Your task to perform on an android device: turn off picture-in-picture Image 0: 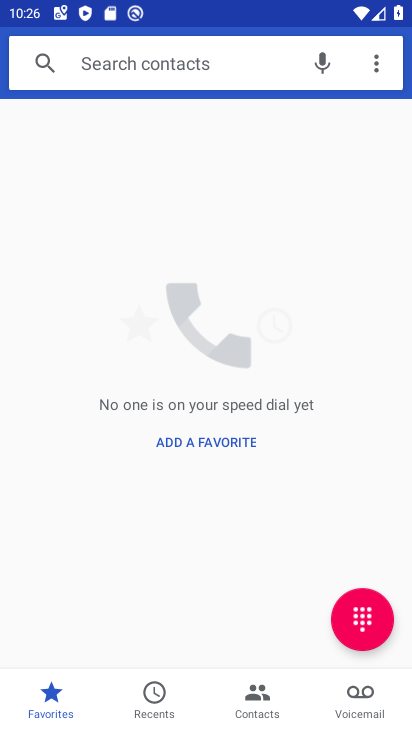
Step 0: press home button
Your task to perform on an android device: turn off picture-in-picture Image 1: 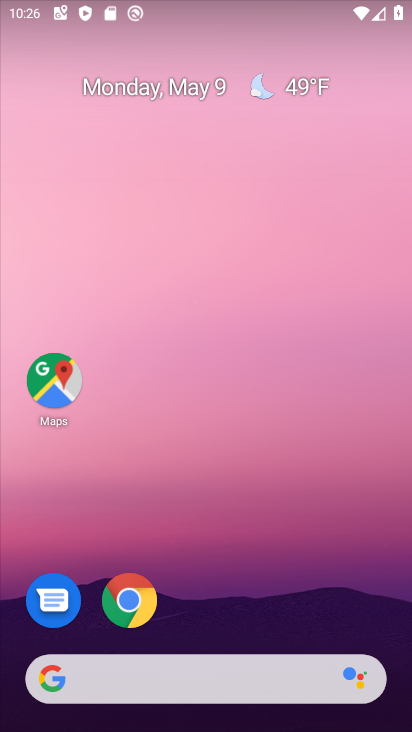
Step 1: drag from (384, 598) to (372, 37)
Your task to perform on an android device: turn off picture-in-picture Image 2: 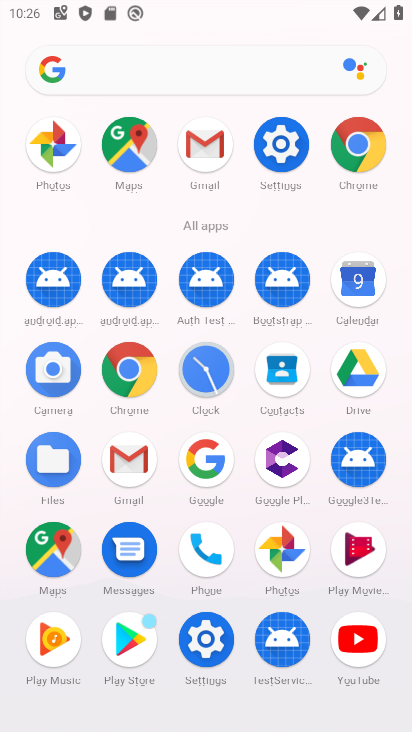
Step 2: click (286, 152)
Your task to perform on an android device: turn off picture-in-picture Image 3: 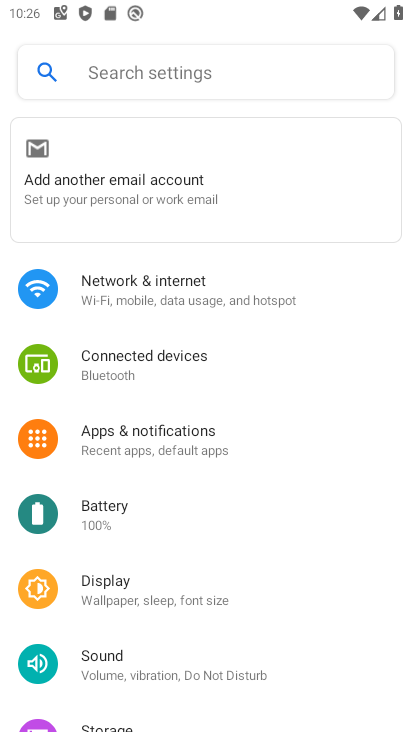
Step 3: click (232, 448)
Your task to perform on an android device: turn off picture-in-picture Image 4: 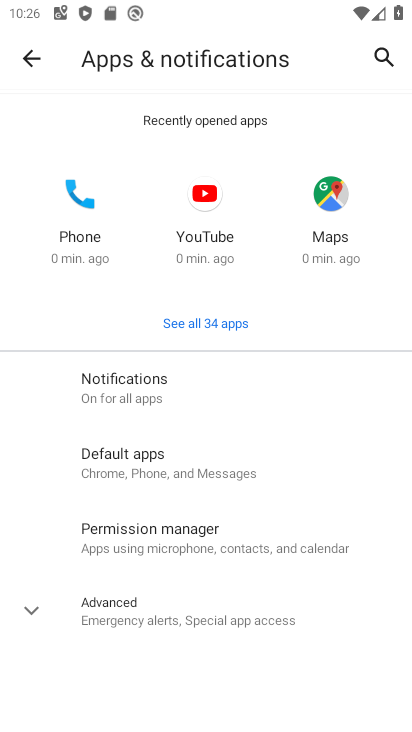
Step 4: click (150, 617)
Your task to perform on an android device: turn off picture-in-picture Image 5: 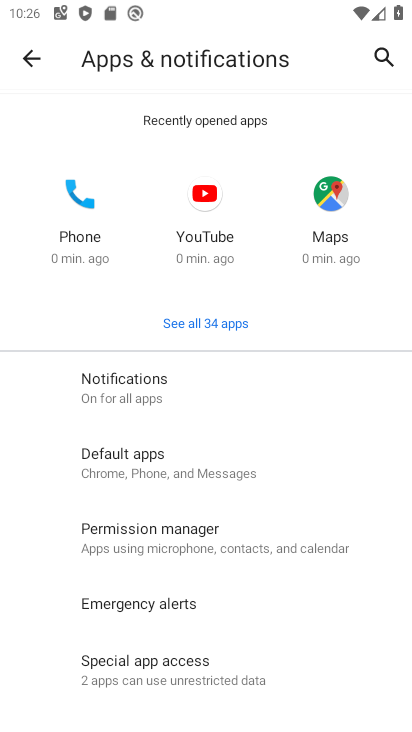
Step 5: drag from (308, 676) to (325, 451)
Your task to perform on an android device: turn off picture-in-picture Image 6: 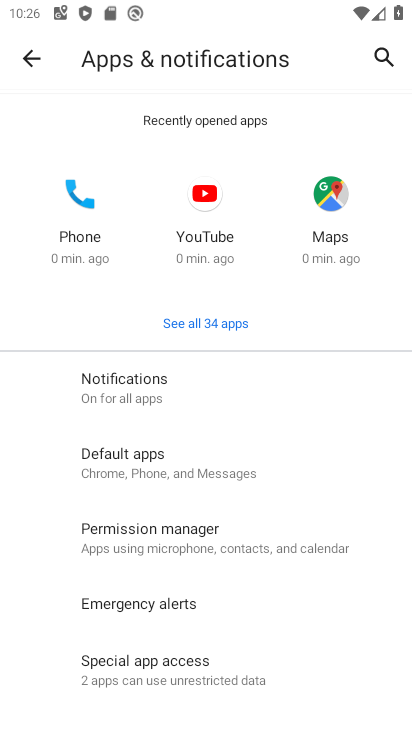
Step 6: click (194, 667)
Your task to perform on an android device: turn off picture-in-picture Image 7: 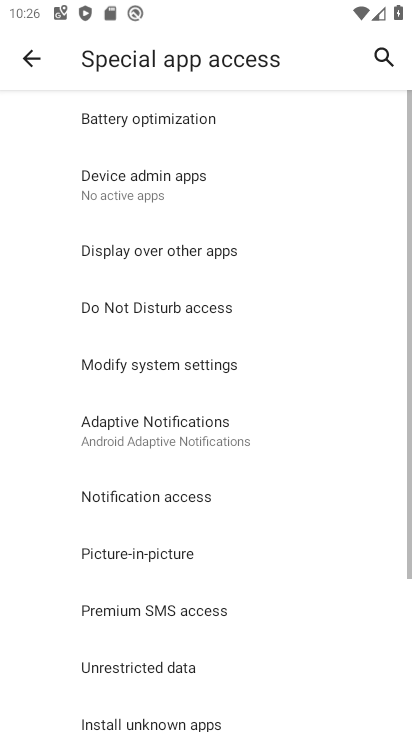
Step 7: drag from (304, 686) to (301, 518)
Your task to perform on an android device: turn off picture-in-picture Image 8: 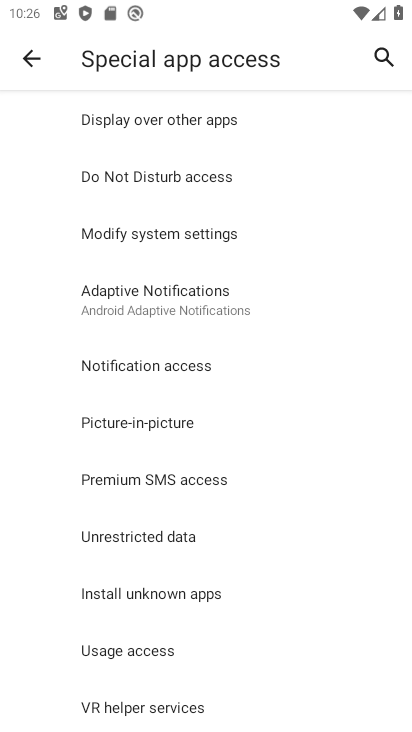
Step 8: click (188, 431)
Your task to perform on an android device: turn off picture-in-picture Image 9: 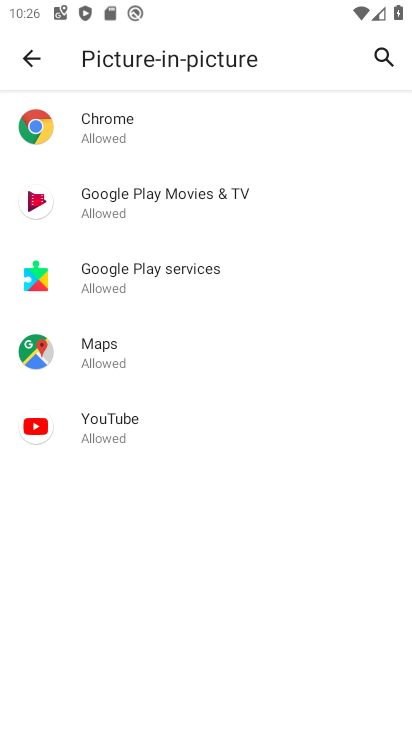
Step 9: click (155, 139)
Your task to perform on an android device: turn off picture-in-picture Image 10: 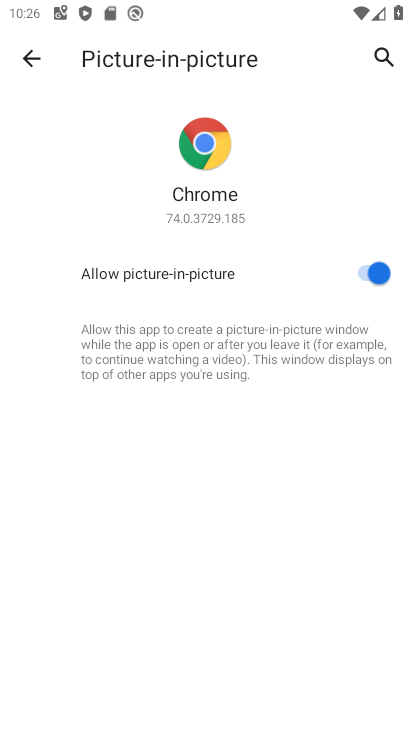
Step 10: click (369, 281)
Your task to perform on an android device: turn off picture-in-picture Image 11: 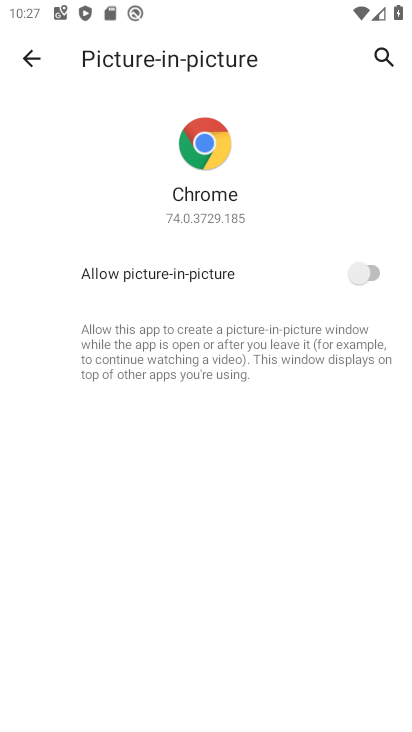
Step 11: task complete